Your task to perform on an android device: Open Android settings Image 0: 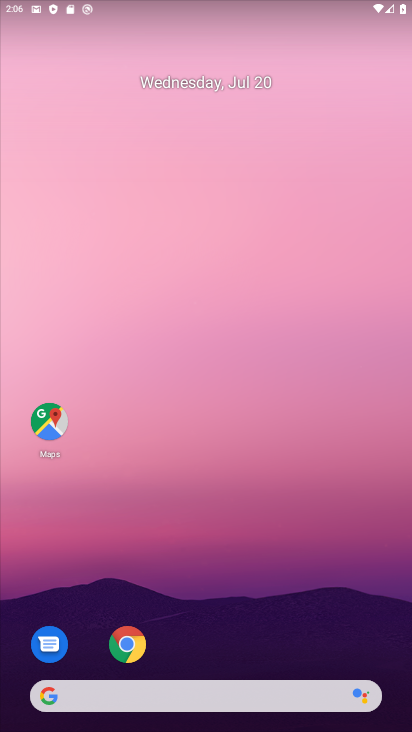
Step 0: drag from (261, 645) to (298, 0)
Your task to perform on an android device: Open Android settings Image 1: 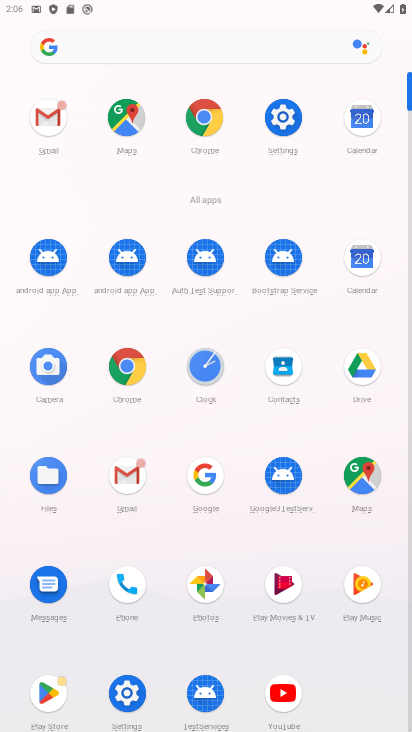
Step 1: click (125, 686)
Your task to perform on an android device: Open Android settings Image 2: 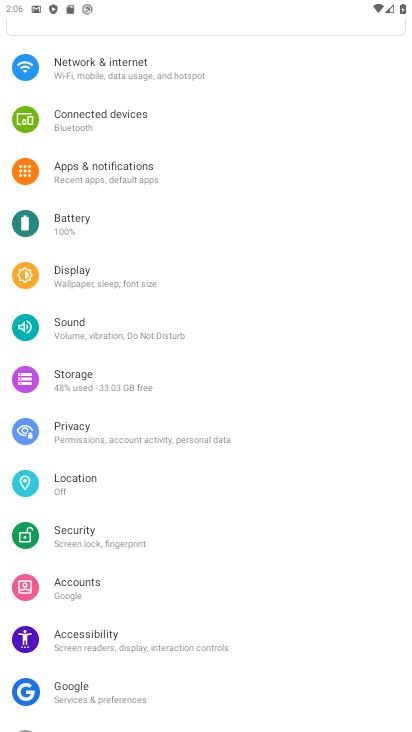
Step 2: drag from (137, 601) to (261, 115)
Your task to perform on an android device: Open Android settings Image 3: 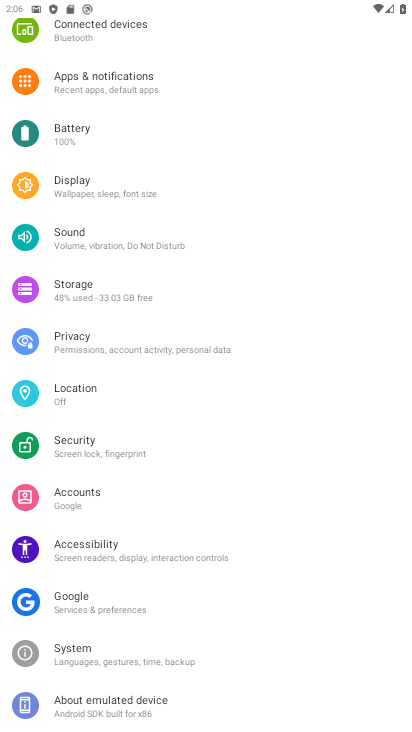
Step 3: click (17, 716)
Your task to perform on an android device: Open Android settings Image 4: 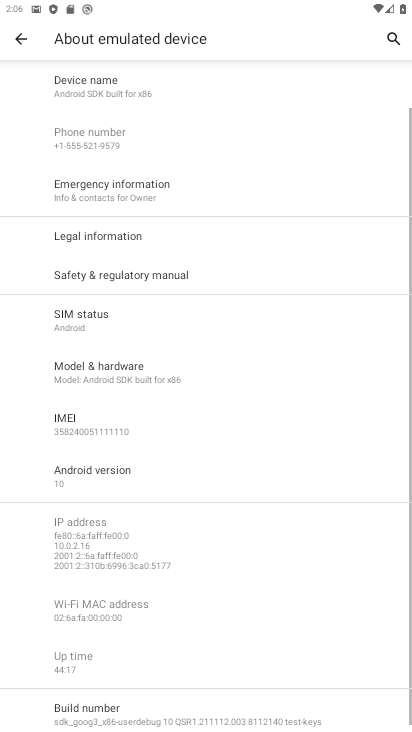
Step 4: click (113, 477)
Your task to perform on an android device: Open Android settings Image 5: 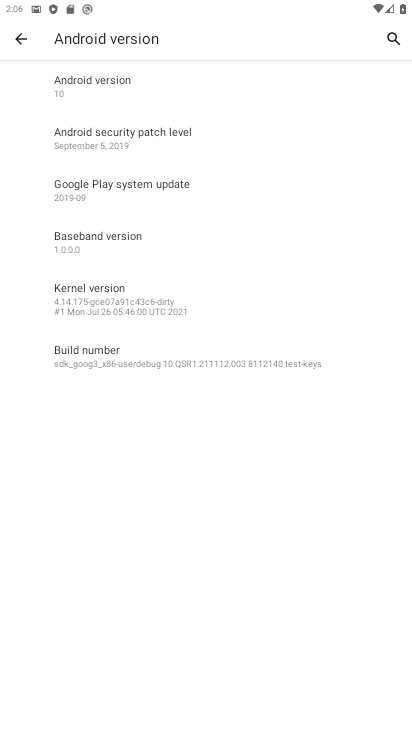
Step 5: task complete